Your task to perform on an android device: Go to privacy settings Image 0: 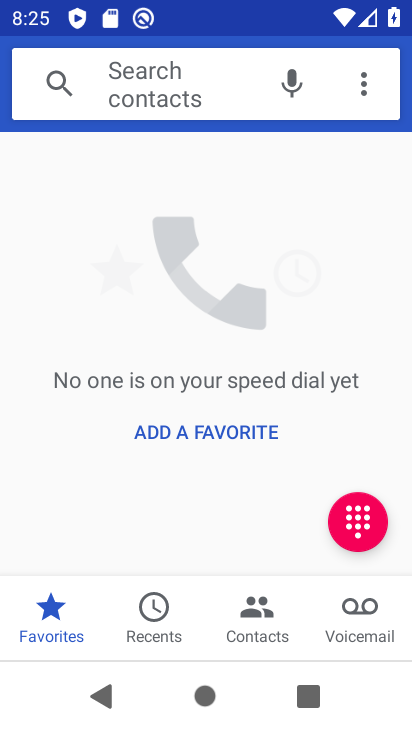
Step 0: press home button
Your task to perform on an android device: Go to privacy settings Image 1: 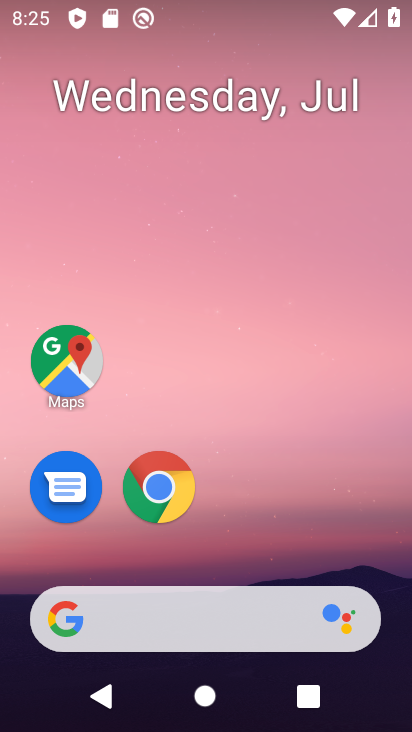
Step 1: drag from (229, 578) to (112, 410)
Your task to perform on an android device: Go to privacy settings Image 2: 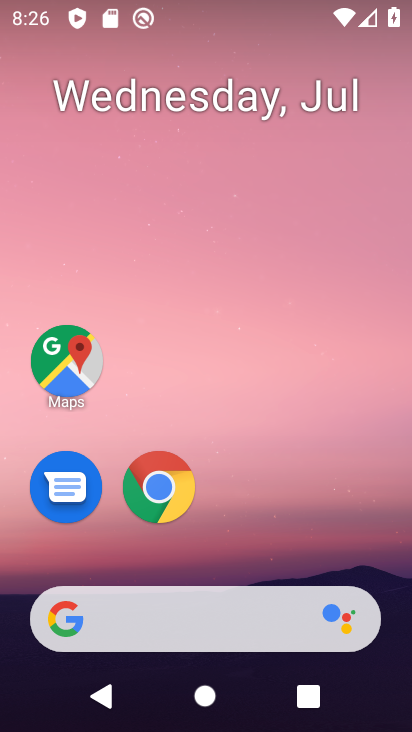
Step 2: drag from (221, 589) to (199, 0)
Your task to perform on an android device: Go to privacy settings Image 3: 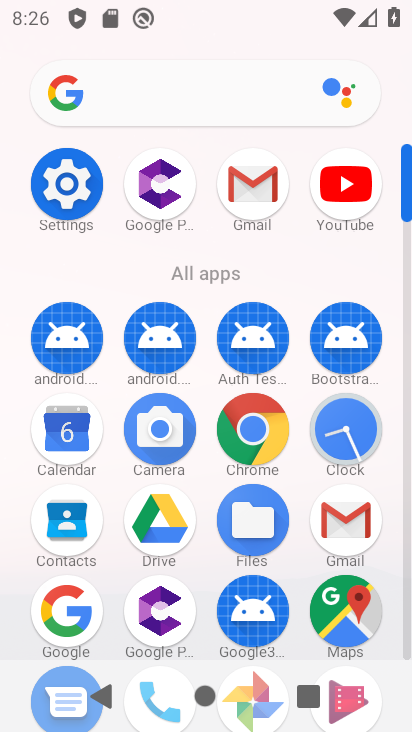
Step 3: click (69, 196)
Your task to perform on an android device: Go to privacy settings Image 4: 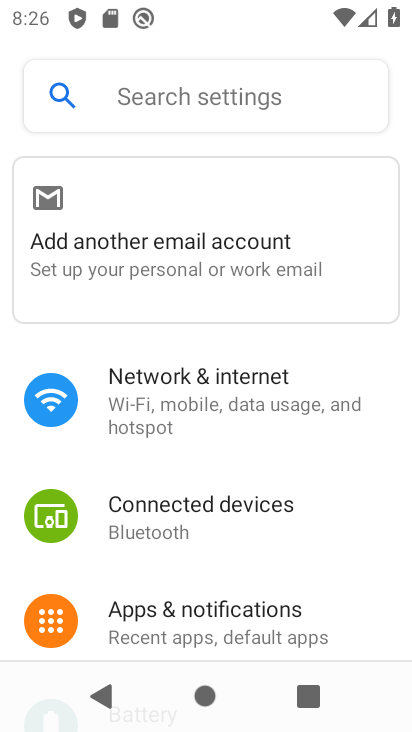
Step 4: drag from (217, 551) to (197, 179)
Your task to perform on an android device: Go to privacy settings Image 5: 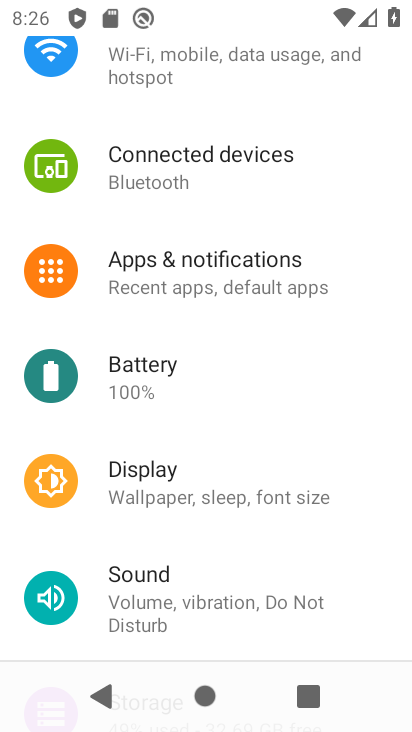
Step 5: drag from (186, 619) to (209, 136)
Your task to perform on an android device: Go to privacy settings Image 6: 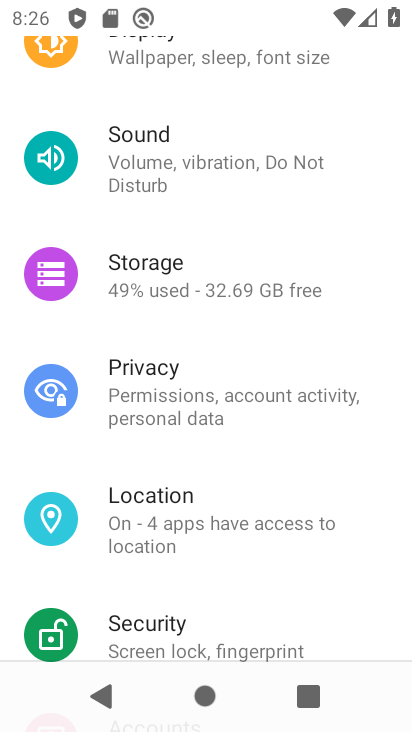
Step 6: click (202, 424)
Your task to perform on an android device: Go to privacy settings Image 7: 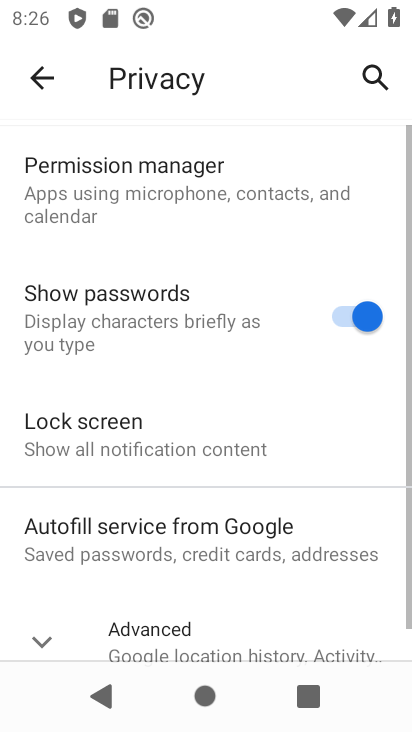
Step 7: task complete